Your task to perform on an android device: open app "Paramount+ | Peak Streaming" (install if not already installed), go to login, and select forgot password Image 0: 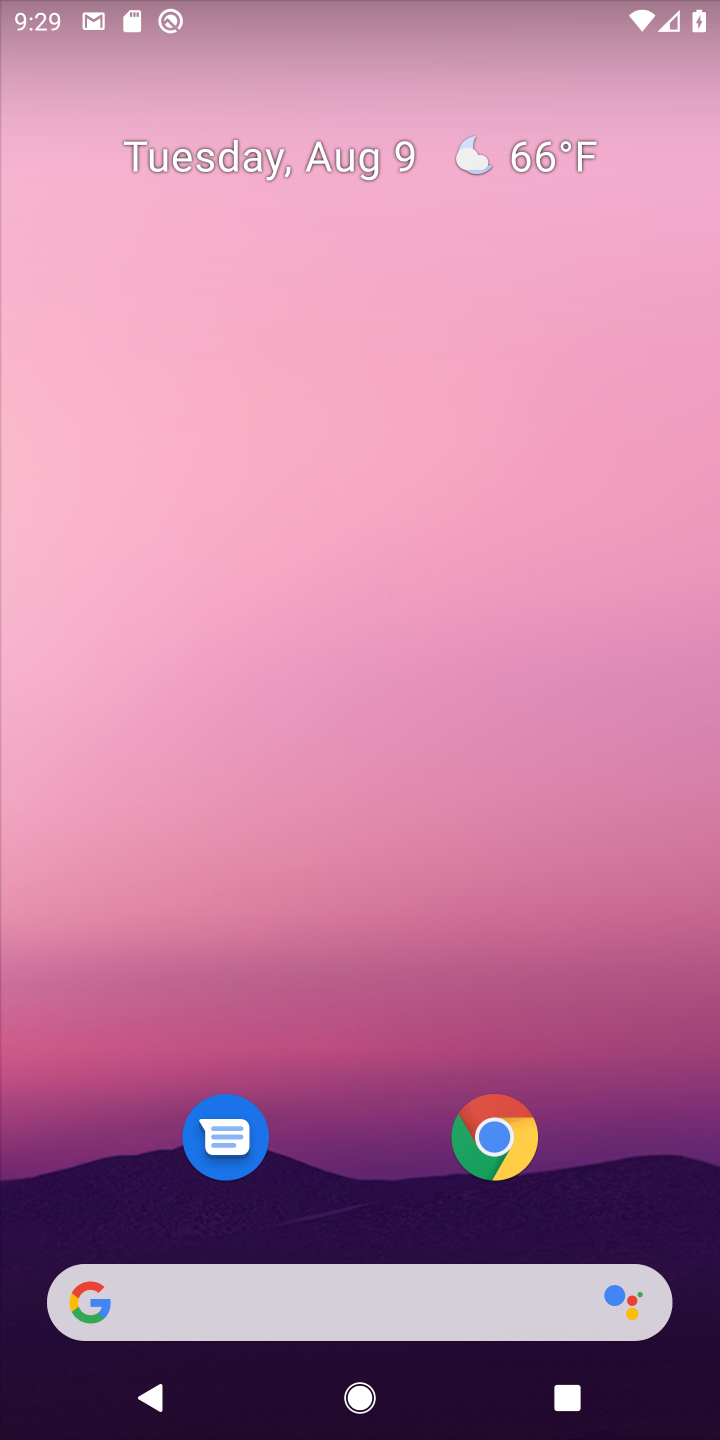
Step 0: drag from (362, 1063) to (368, 373)
Your task to perform on an android device: open app "Paramount+ | Peak Streaming" (install if not already installed), go to login, and select forgot password Image 1: 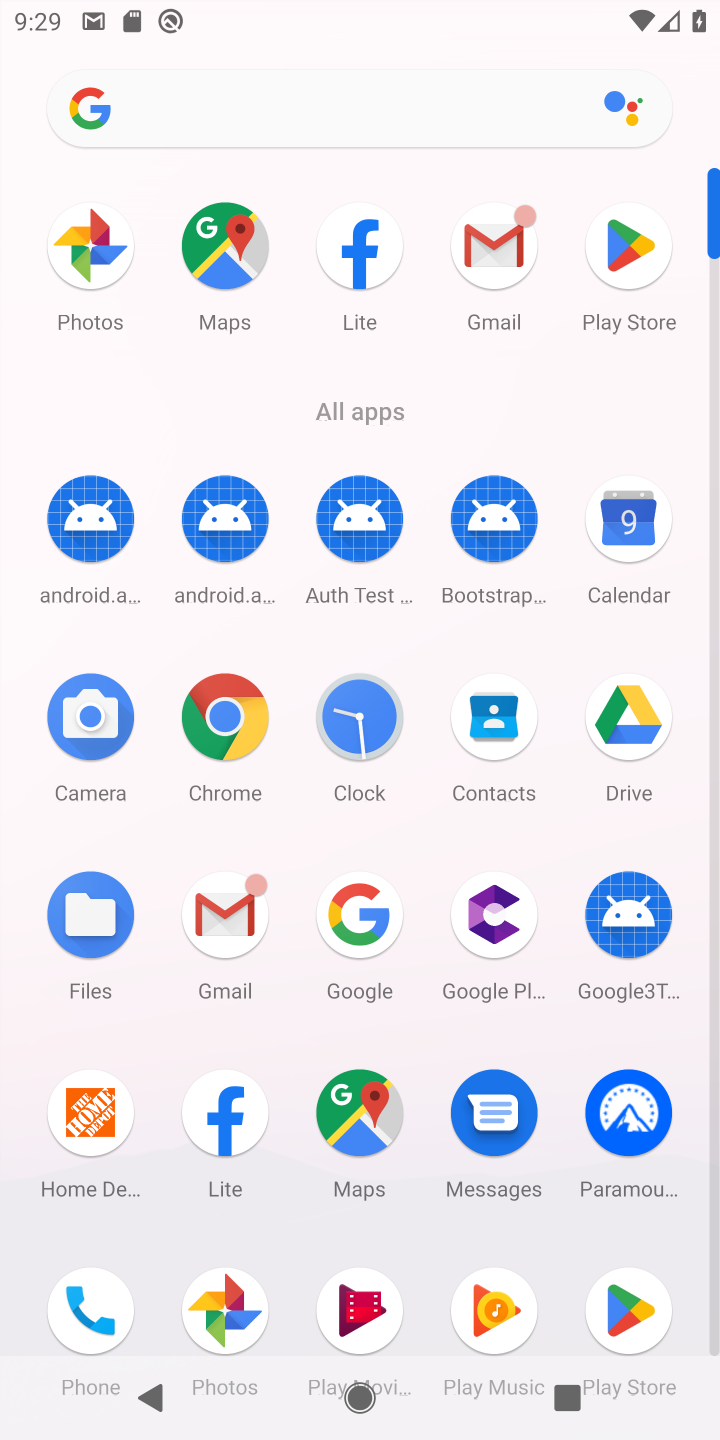
Step 1: click (651, 256)
Your task to perform on an android device: open app "Paramount+ | Peak Streaming" (install if not already installed), go to login, and select forgot password Image 2: 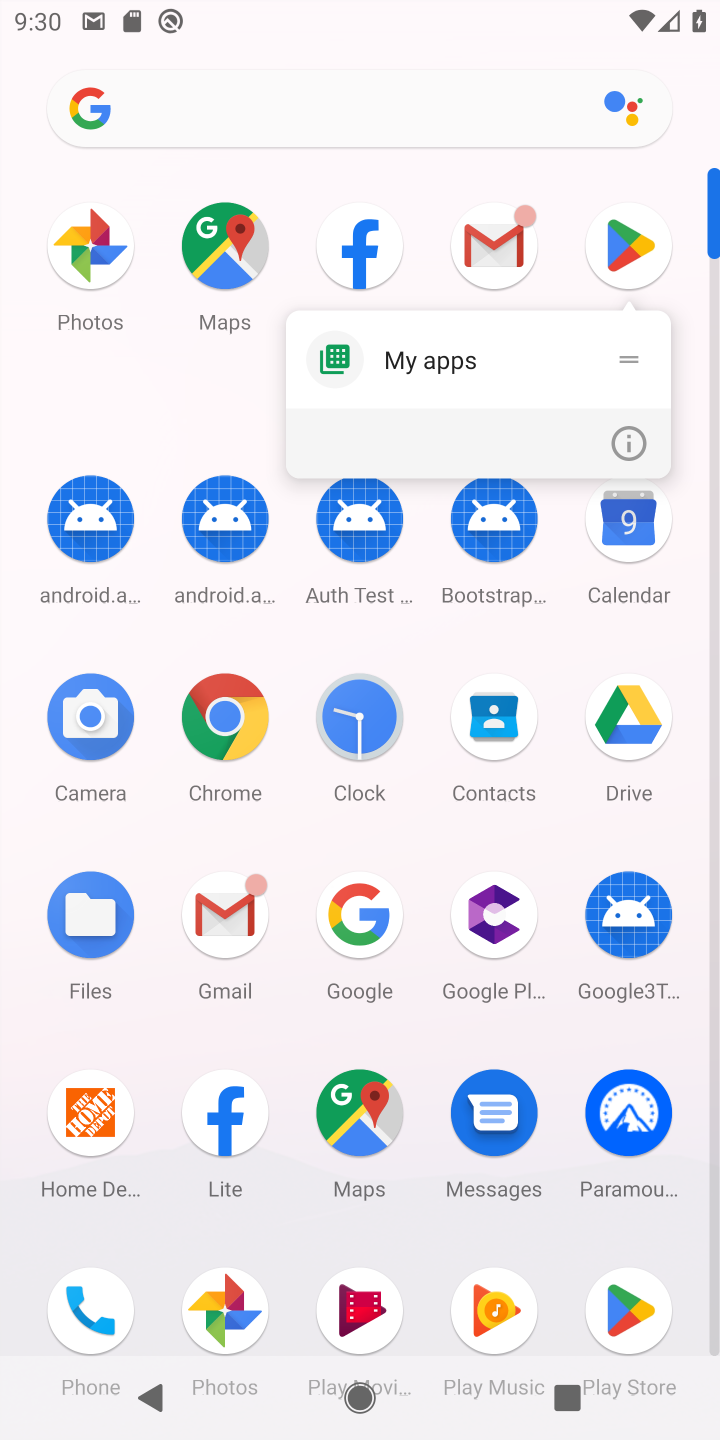
Step 2: click (646, 256)
Your task to perform on an android device: open app "Paramount+ | Peak Streaming" (install if not already installed), go to login, and select forgot password Image 3: 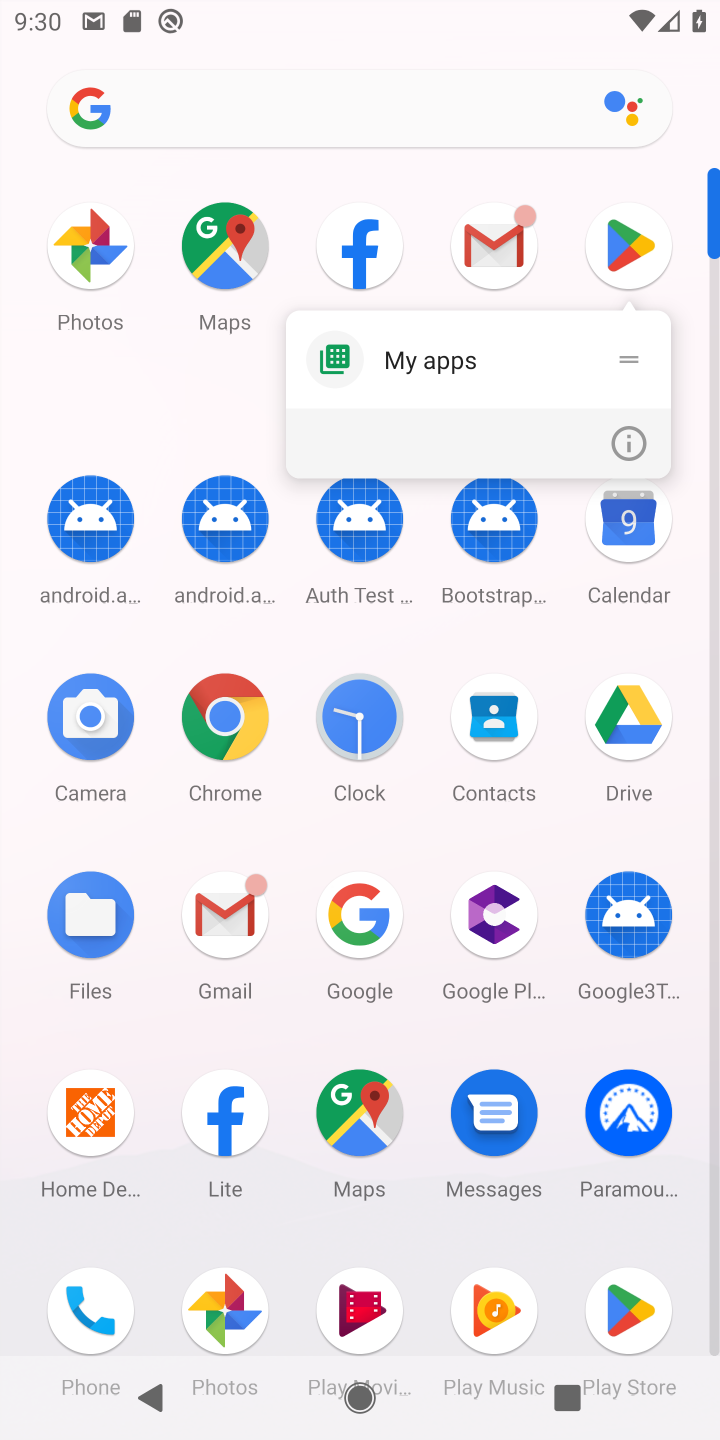
Step 3: click (627, 241)
Your task to perform on an android device: open app "Paramount+ | Peak Streaming" (install if not already installed), go to login, and select forgot password Image 4: 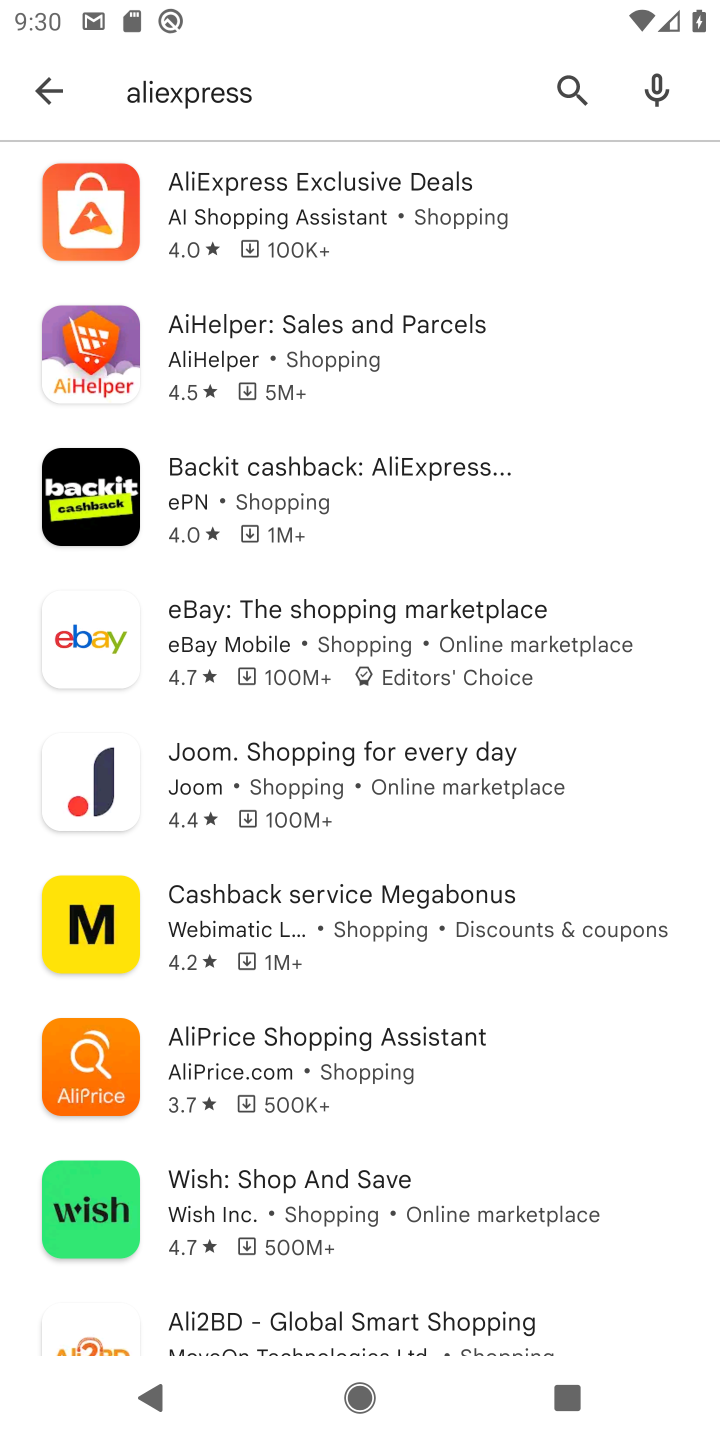
Step 4: click (566, 92)
Your task to perform on an android device: open app "Paramount+ | Peak Streaming" (install if not already installed), go to login, and select forgot password Image 5: 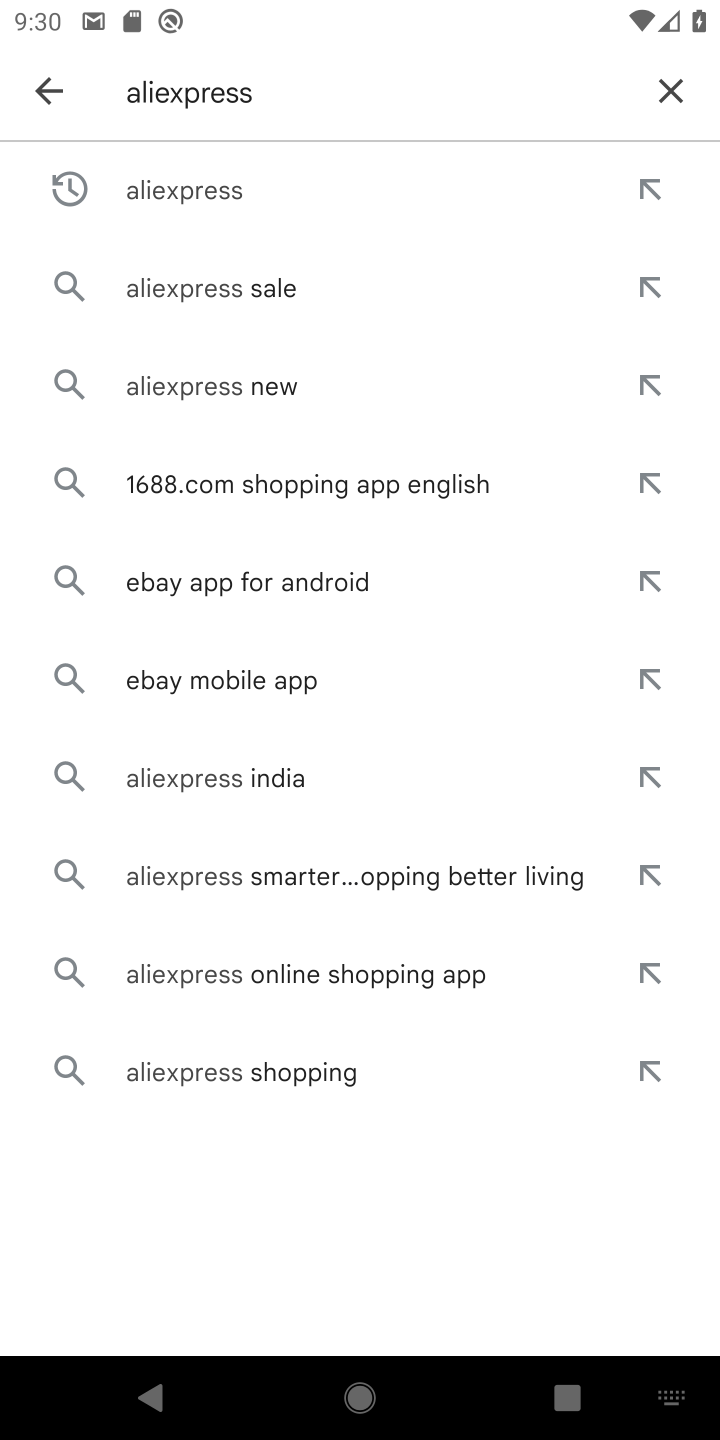
Step 5: click (657, 99)
Your task to perform on an android device: open app "Paramount+ | Peak Streaming" (install if not already installed), go to login, and select forgot password Image 6: 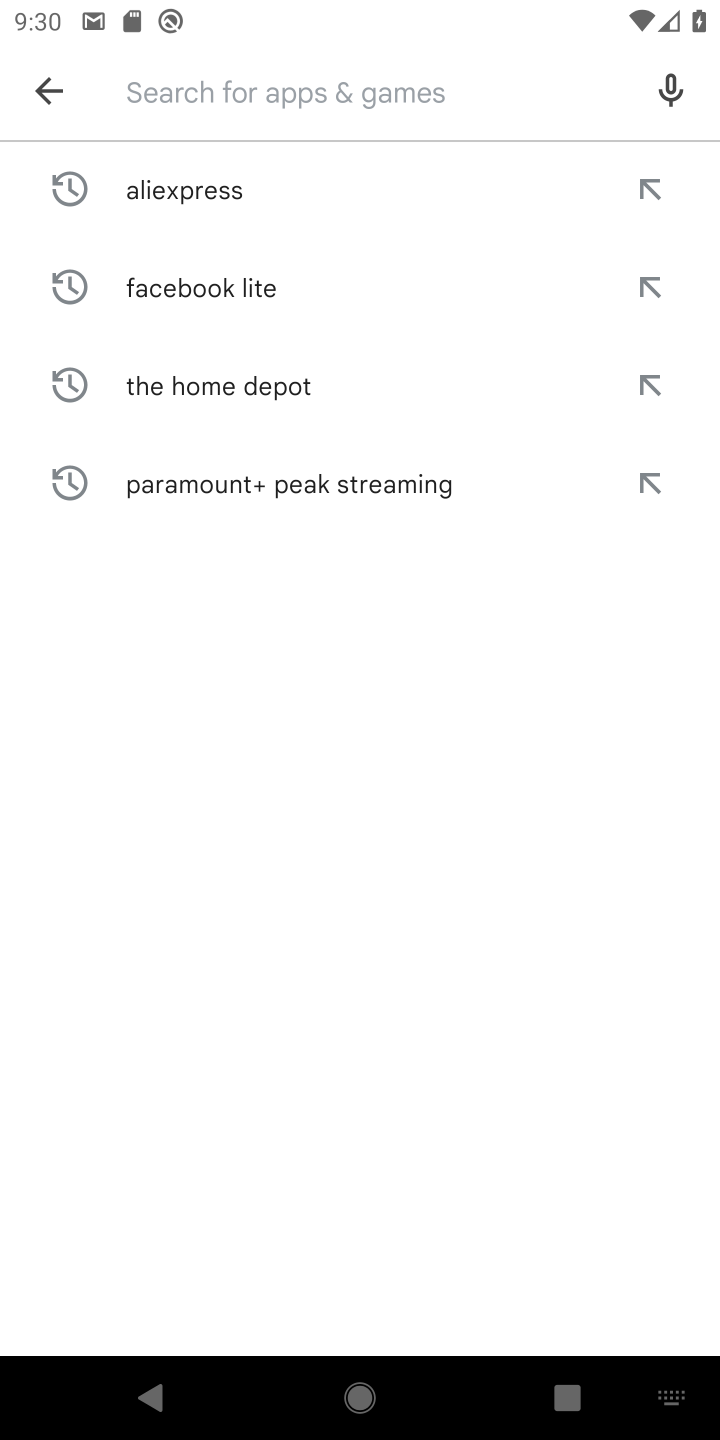
Step 6: type "Paramount+ | Peak Streaming"
Your task to perform on an android device: open app "Paramount+ | Peak Streaming" (install if not already installed), go to login, and select forgot password Image 7: 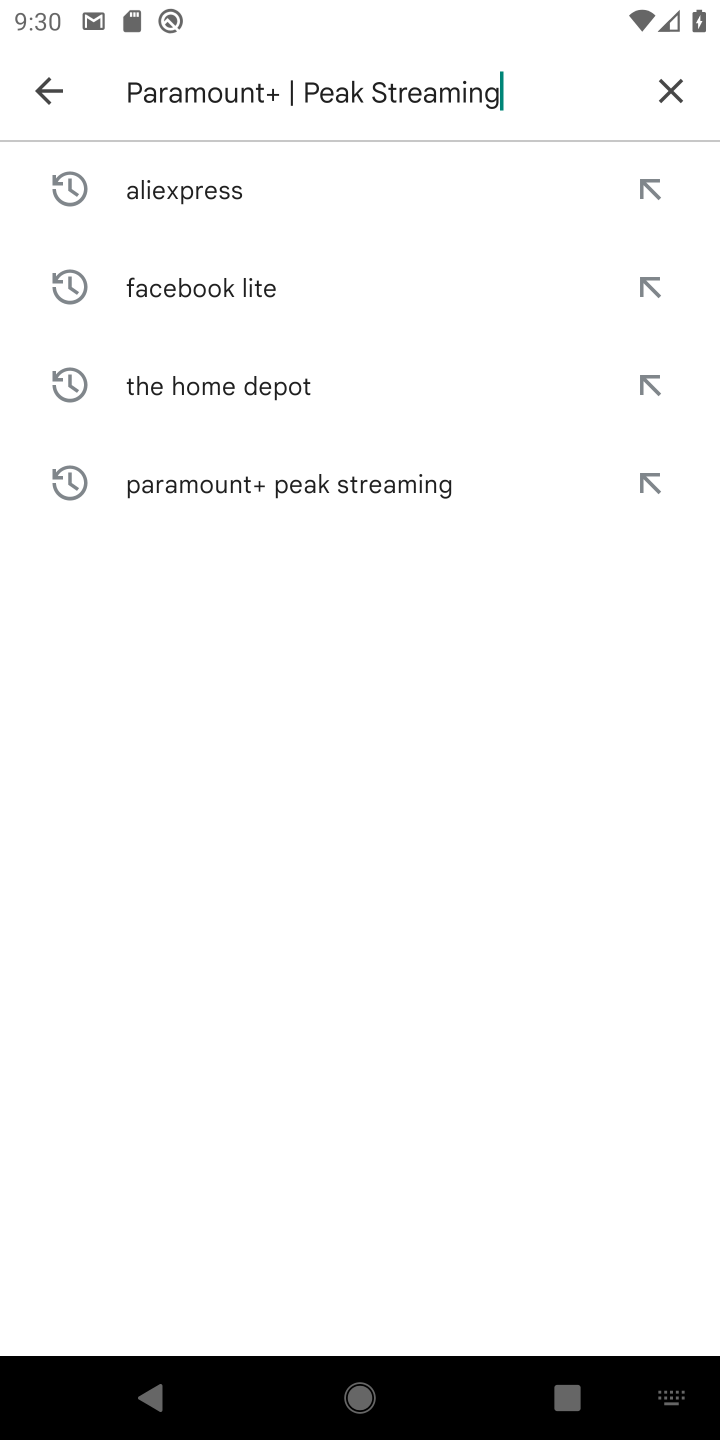
Step 7: type ""
Your task to perform on an android device: open app "Paramount+ | Peak Streaming" (install if not already installed), go to login, and select forgot password Image 8: 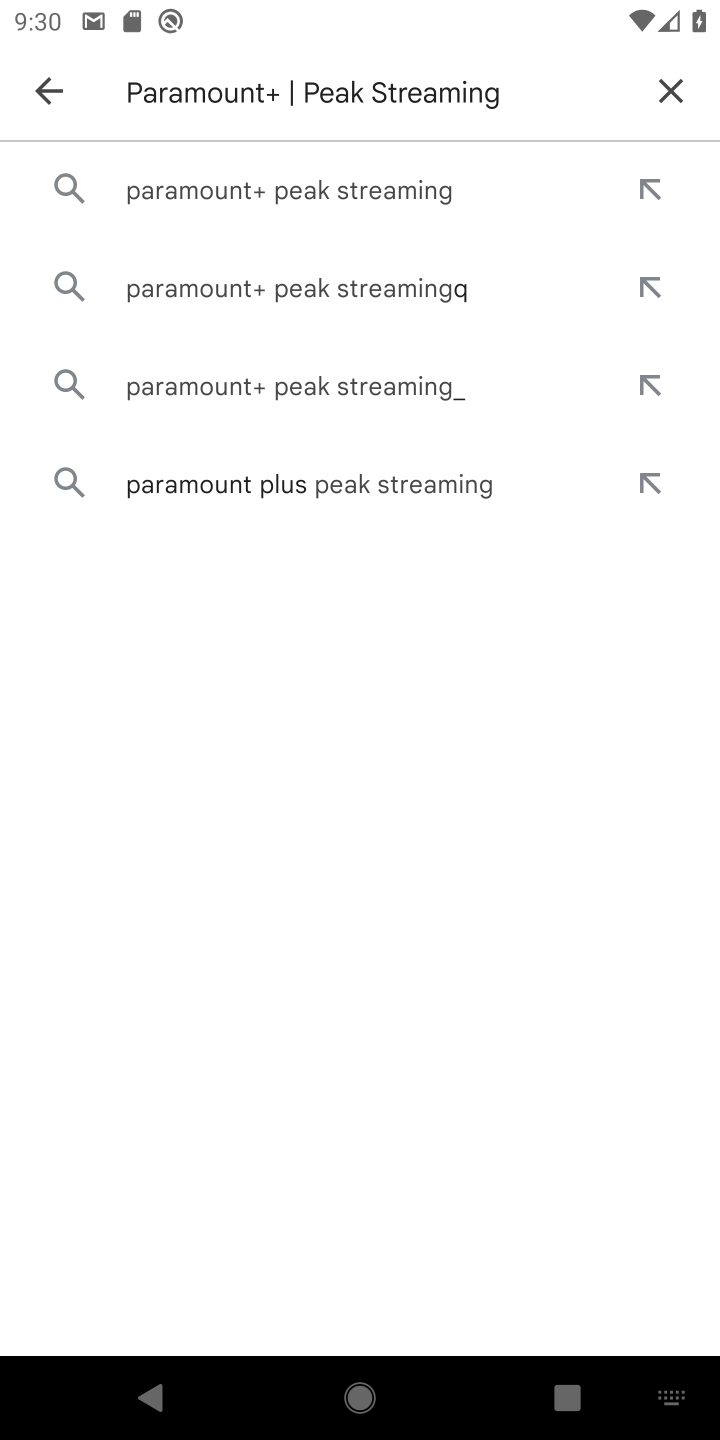
Step 8: click (246, 203)
Your task to perform on an android device: open app "Paramount+ | Peak Streaming" (install if not already installed), go to login, and select forgot password Image 9: 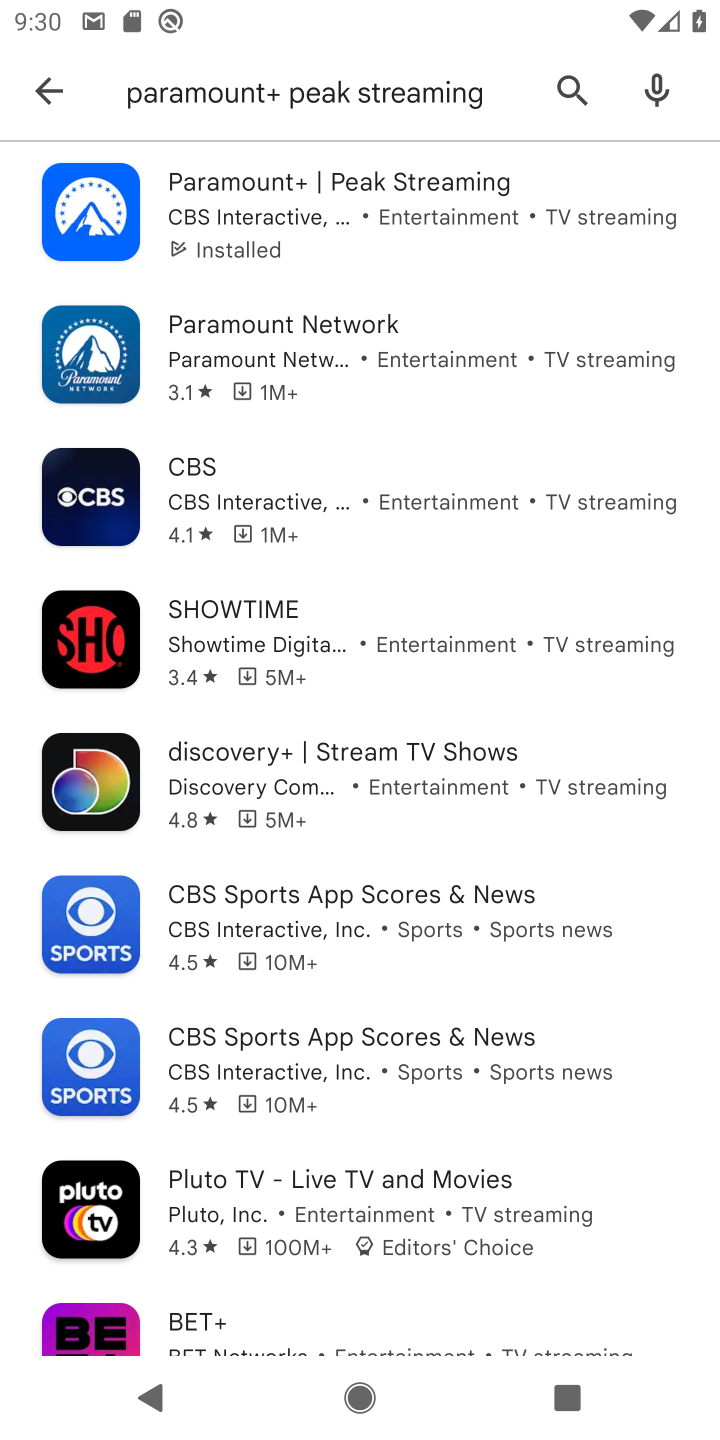
Step 9: click (246, 203)
Your task to perform on an android device: open app "Paramount+ | Peak Streaming" (install if not already installed), go to login, and select forgot password Image 10: 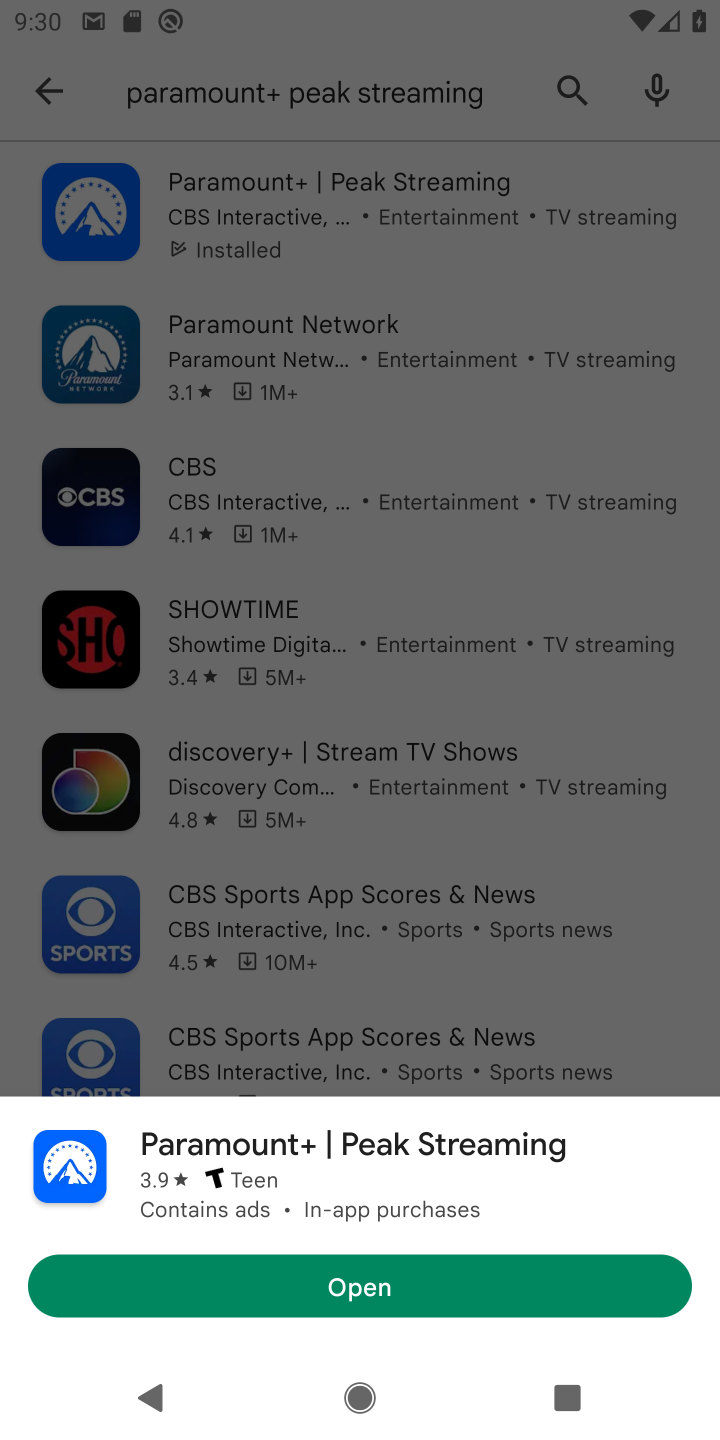
Step 10: click (373, 1274)
Your task to perform on an android device: open app "Paramount+ | Peak Streaming" (install if not already installed), go to login, and select forgot password Image 11: 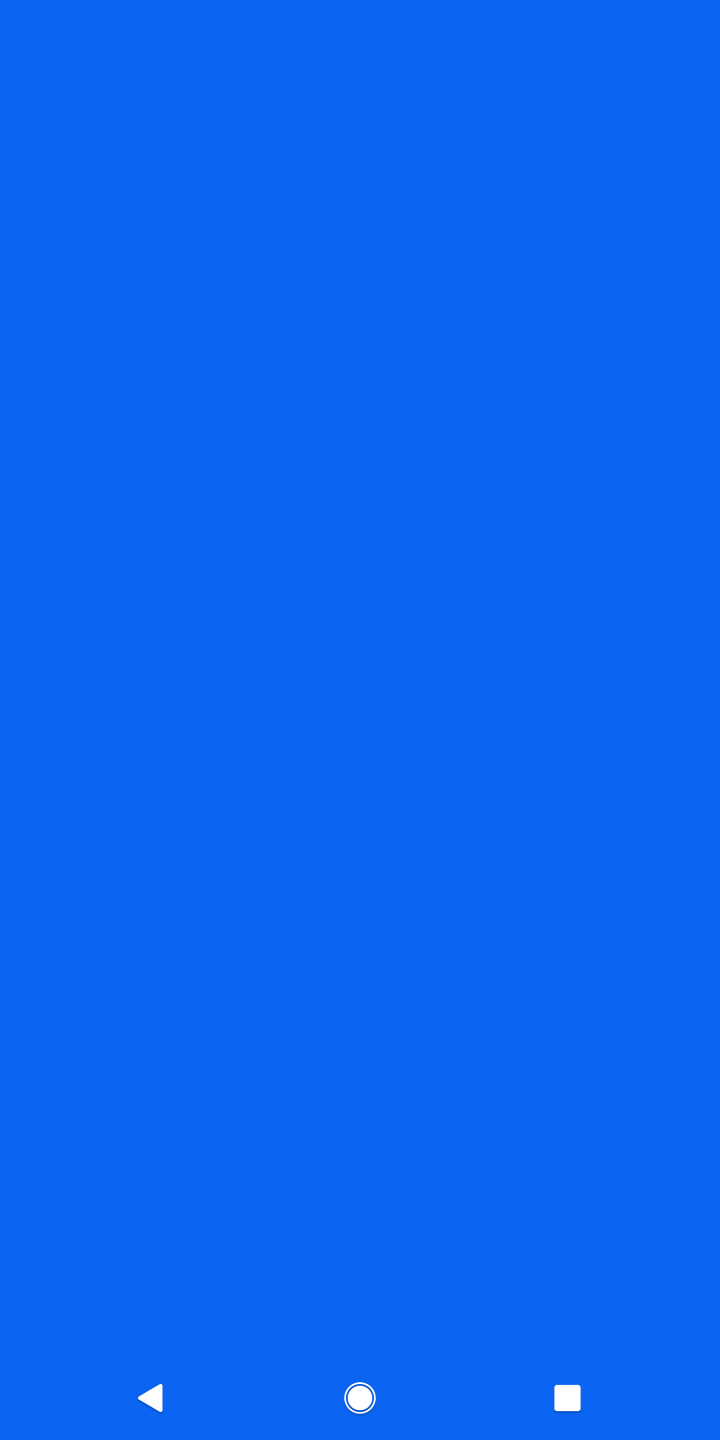
Step 11: task complete